Your task to perform on an android device: turn off location Image 0: 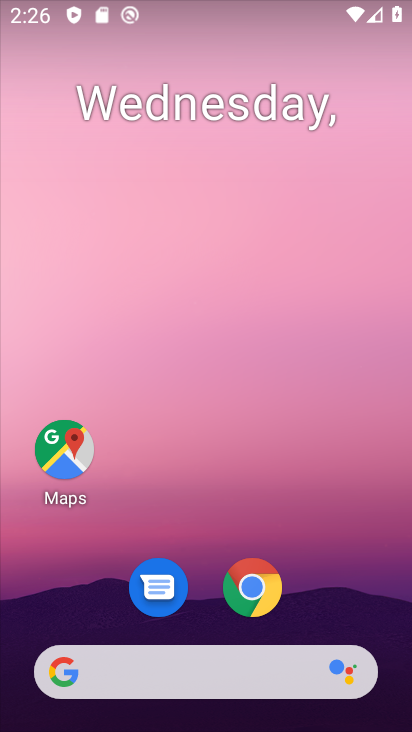
Step 0: drag from (357, 592) to (299, 198)
Your task to perform on an android device: turn off location Image 1: 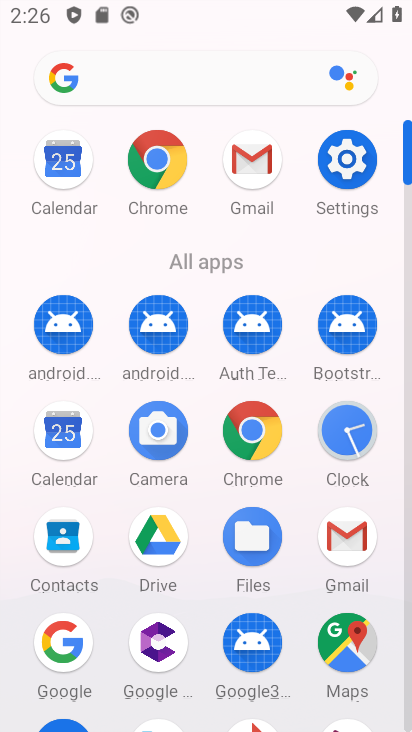
Step 1: click (358, 154)
Your task to perform on an android device: turn off location Image 2: 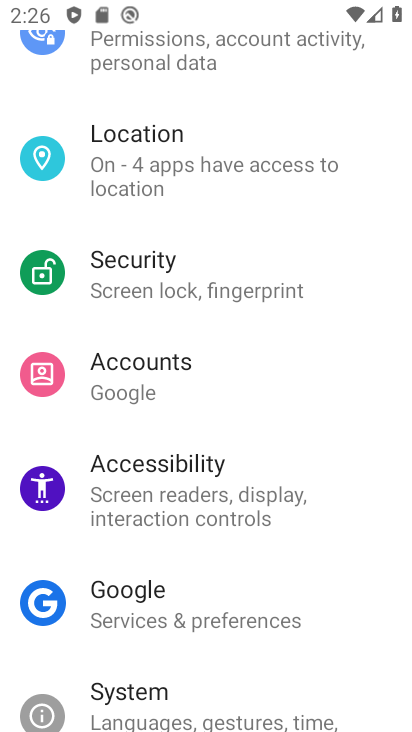
Step 2: click (306, 167)
Your task to perform on an android device: turn off location Image 3: 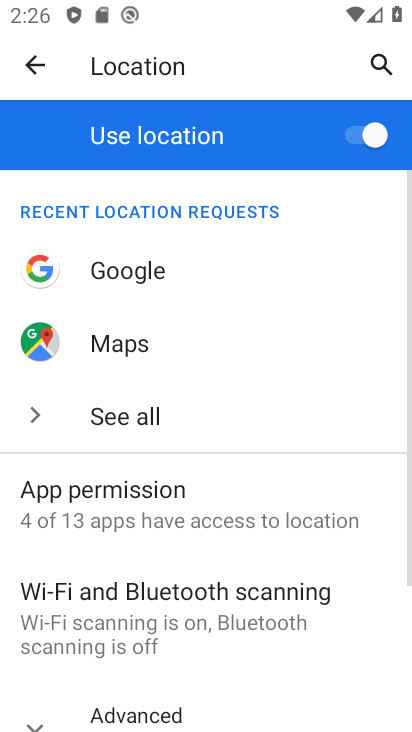
Step 3: click (363, 128)
Your task to perform on an android device: turn off location Image 4: 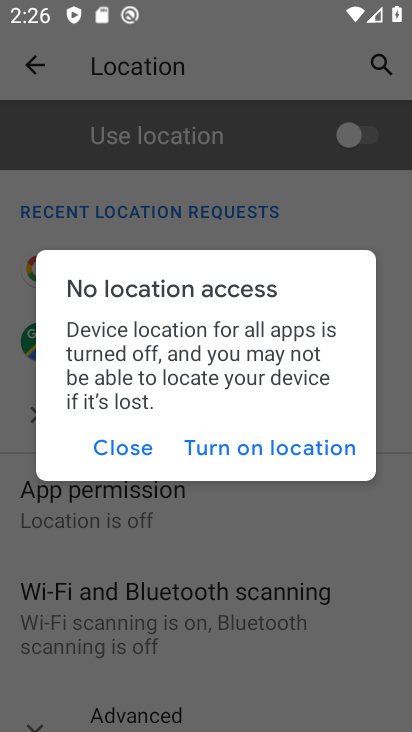
Step 4: task complete